Your task to perform on an android device: make emails show in primary in the gmail app Image 0: 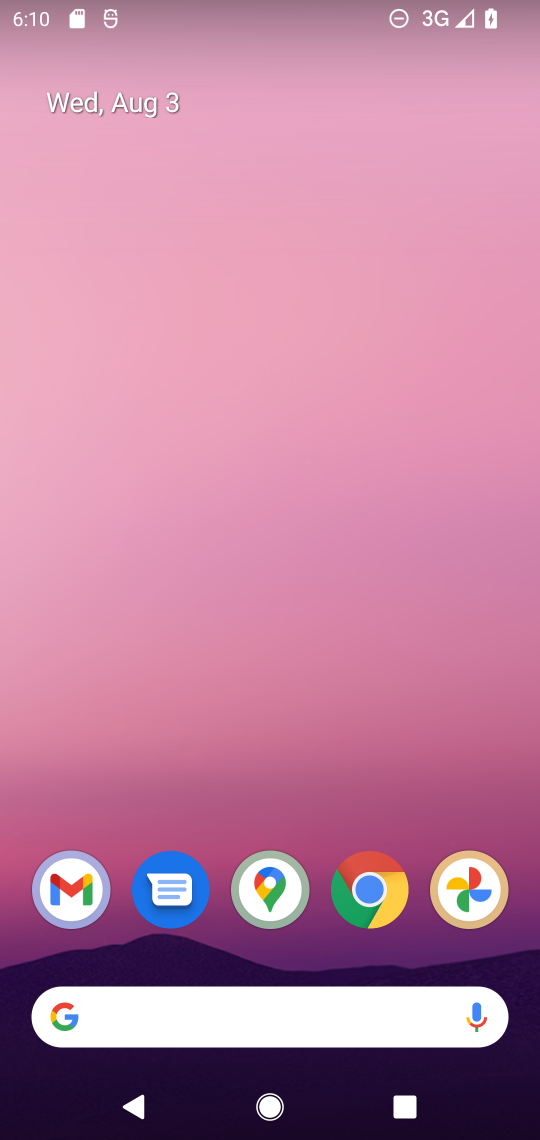
Step 0: click (72, 881)
Your task to perform on an android device: make emails show in primary in the gmail app Image 1: 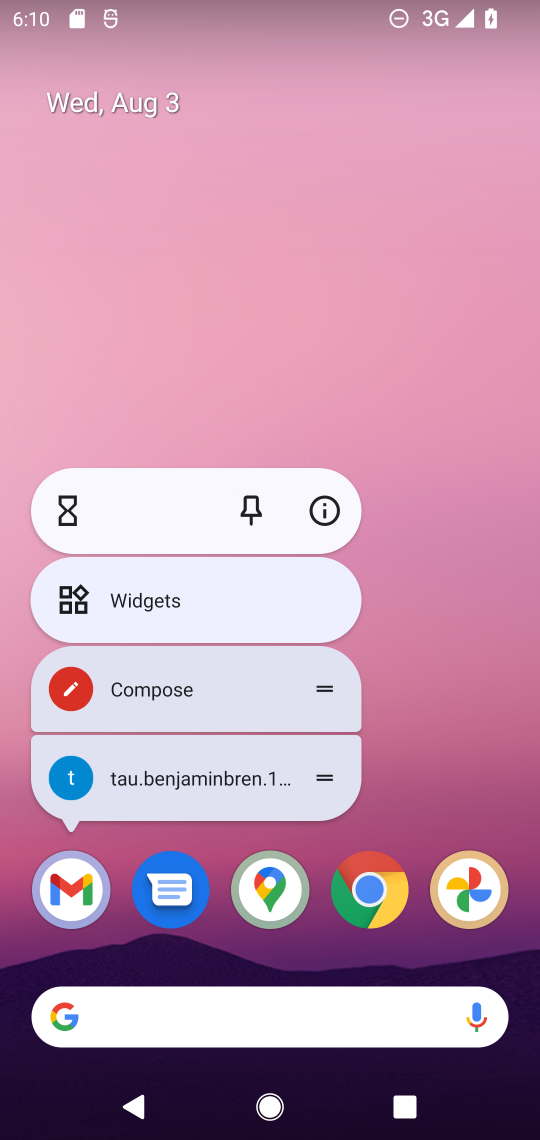
Step 1: click (72, 881)
Your task to perform on an android device: make emails show in primary in the gmail app Image 2: 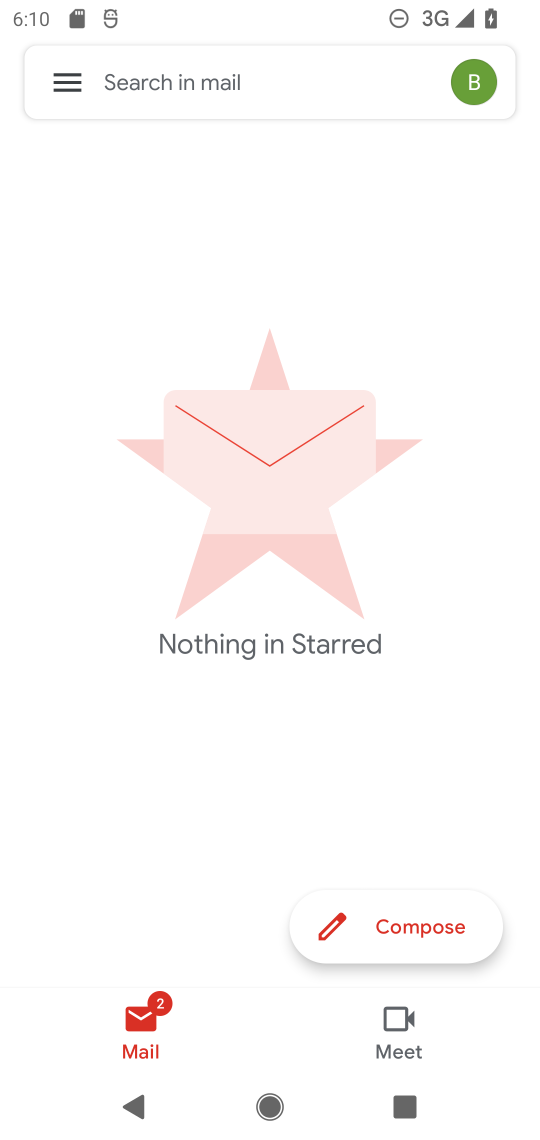
Step 2: click (73, 78)
Your task to perform on an android device: make emails show in primary in the gmail app Image 3: 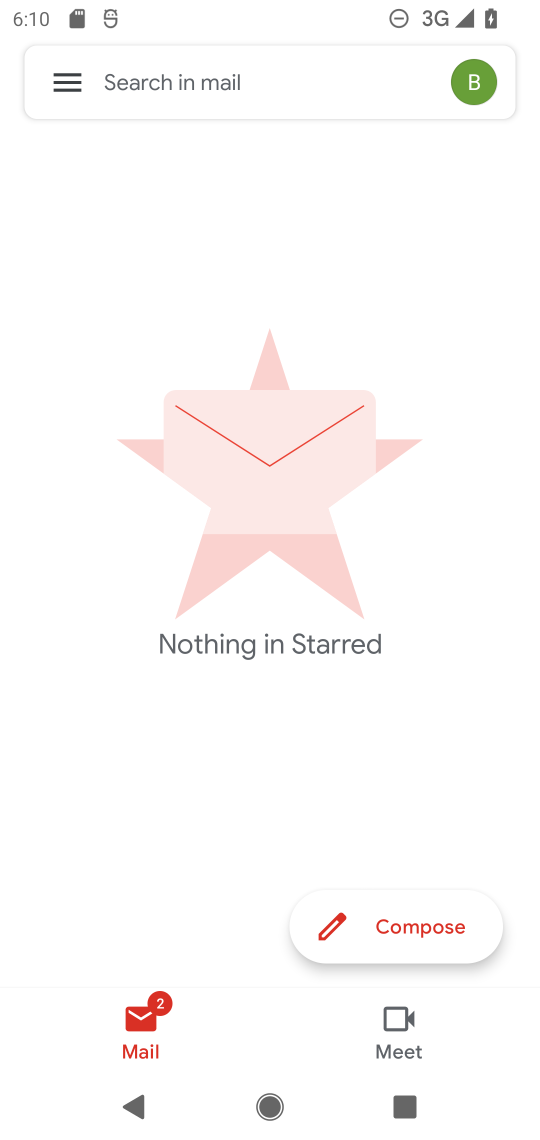
Step 3: click (73, 78)
Your task to perform on an android device: make emails show in primary in the gmail app Image 4: 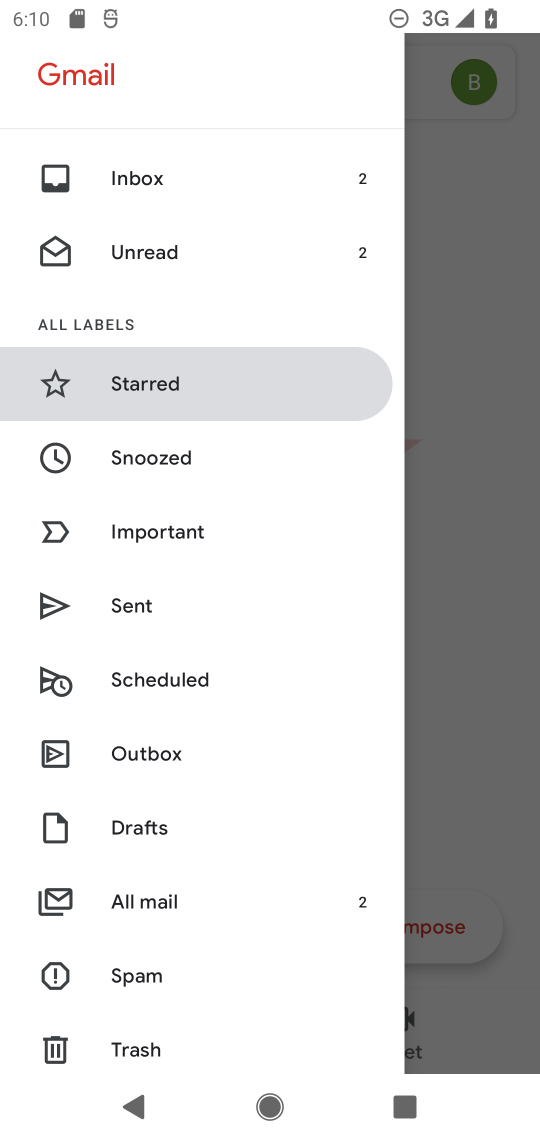
Step 4: drag from (288, 806) to (329, 186)
Your task to perform on an android device: make emails show in primary in the gmail app Image 5: 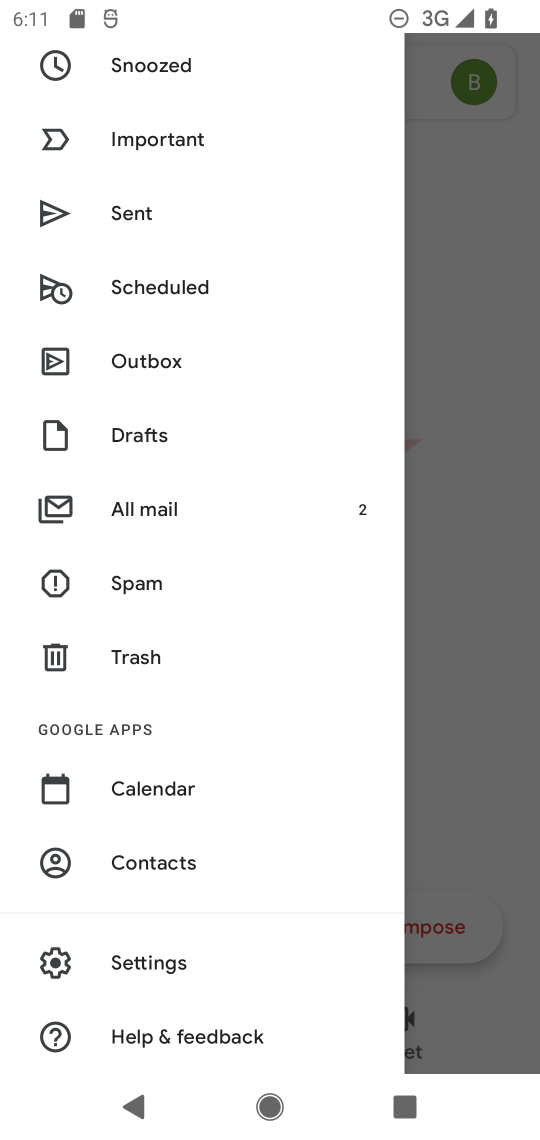
Step 5: click (155, 961)
Your task to perform on an android device: make emails show in primary in the gmail app Image 6: 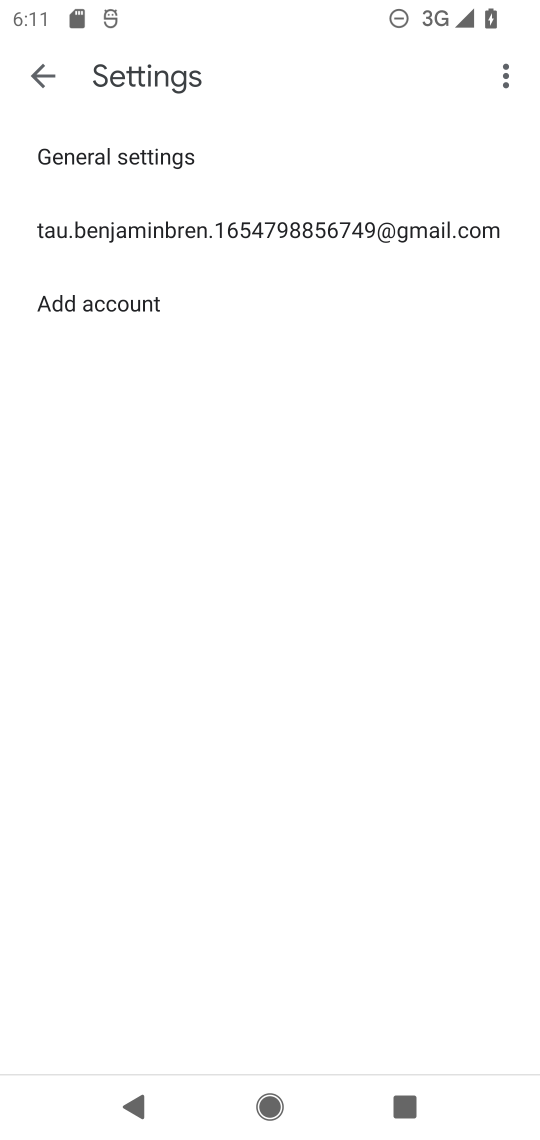
Step 6: click (304, 211)
Your task to perform on an android device: make emails show in primary in the gmail app Image 7: 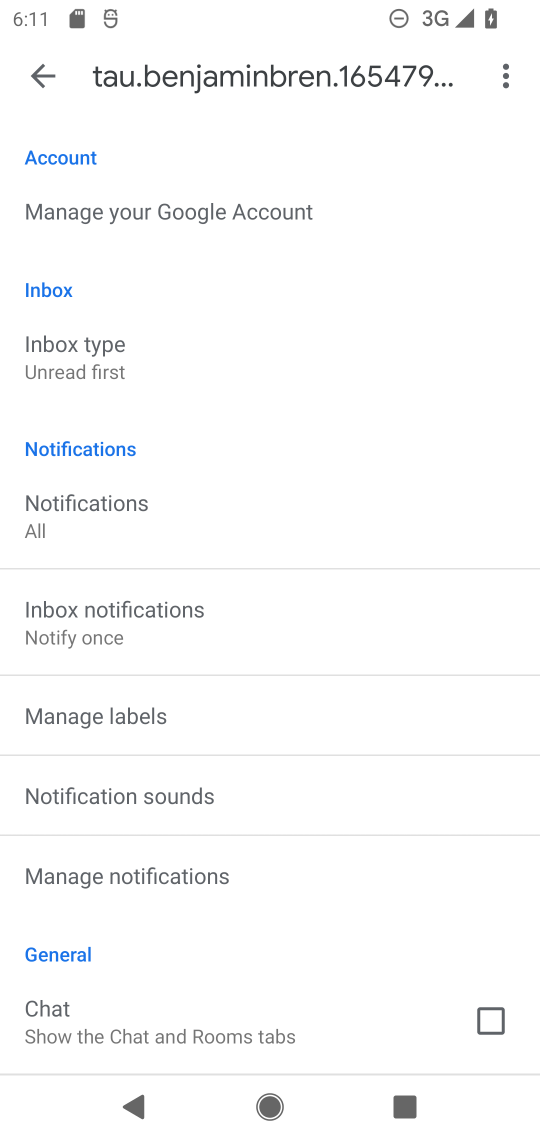
Step 7: click (115, 342)
Your task to perform on an android device: make emails show in primary in the gmail app Image 8: 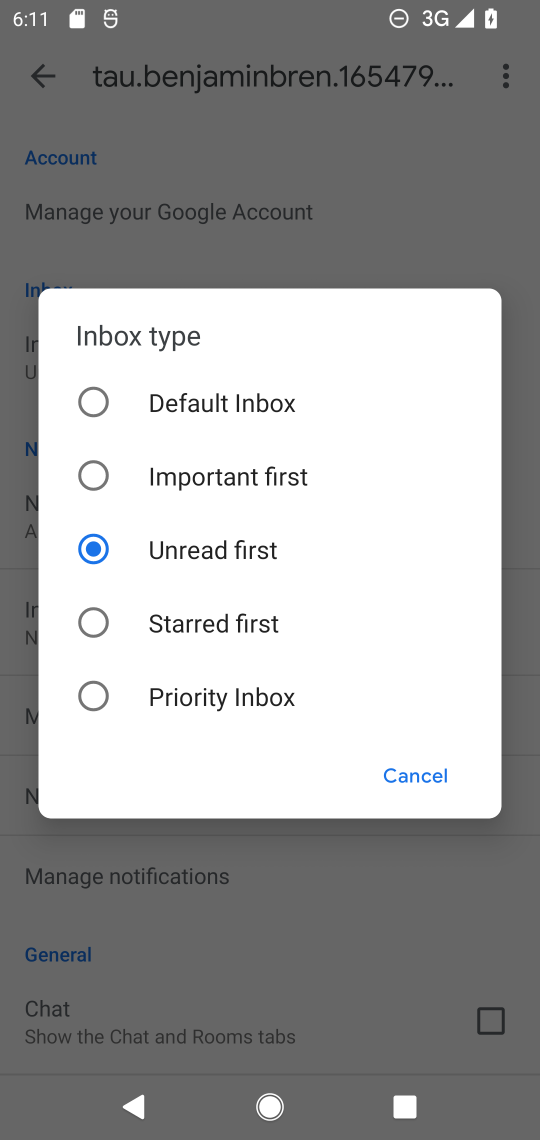
Step 8: click (96, 389)
Your task to perform on an android device: make emails show in primary in the gmail app Image 9: 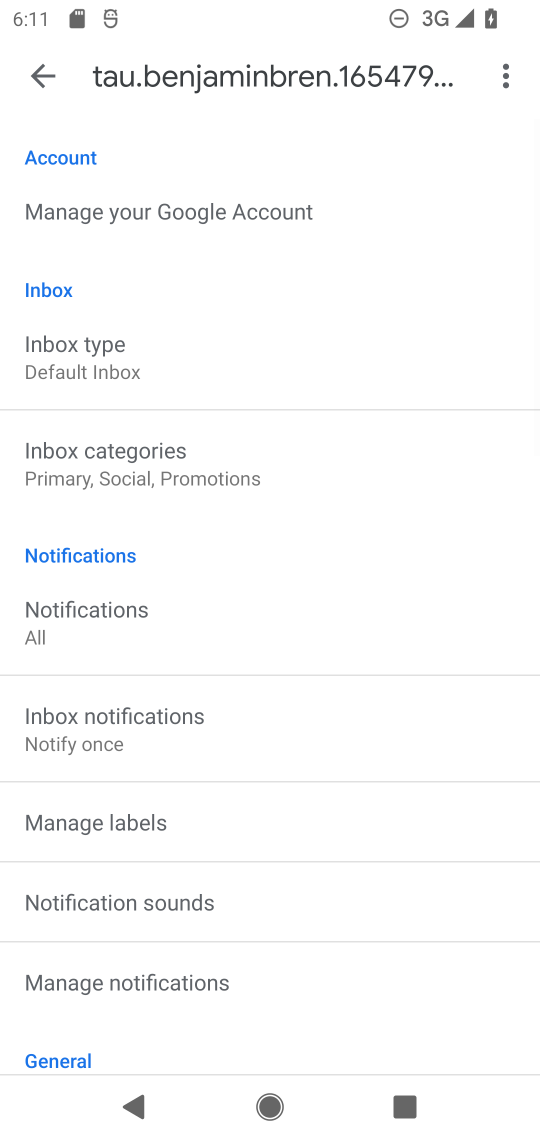
Step 9: click (106, 448)
Your task to perform on an android device: make emails show in primary in the gmail app Image 10: 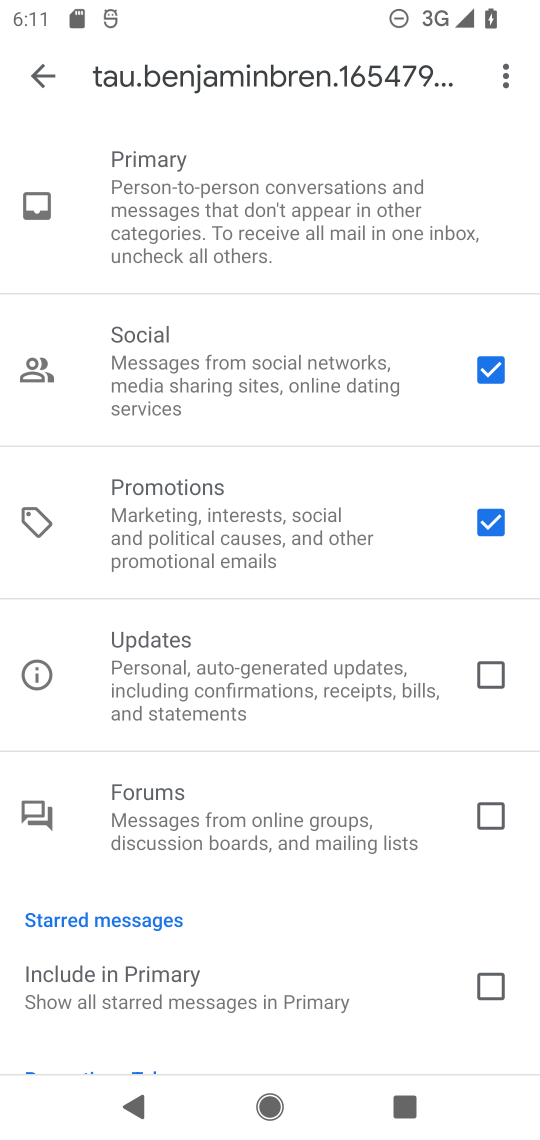
Step 10: click (491, 370)
Your task to perform on an android device: make emails show in primary in the gmail app Image 11: 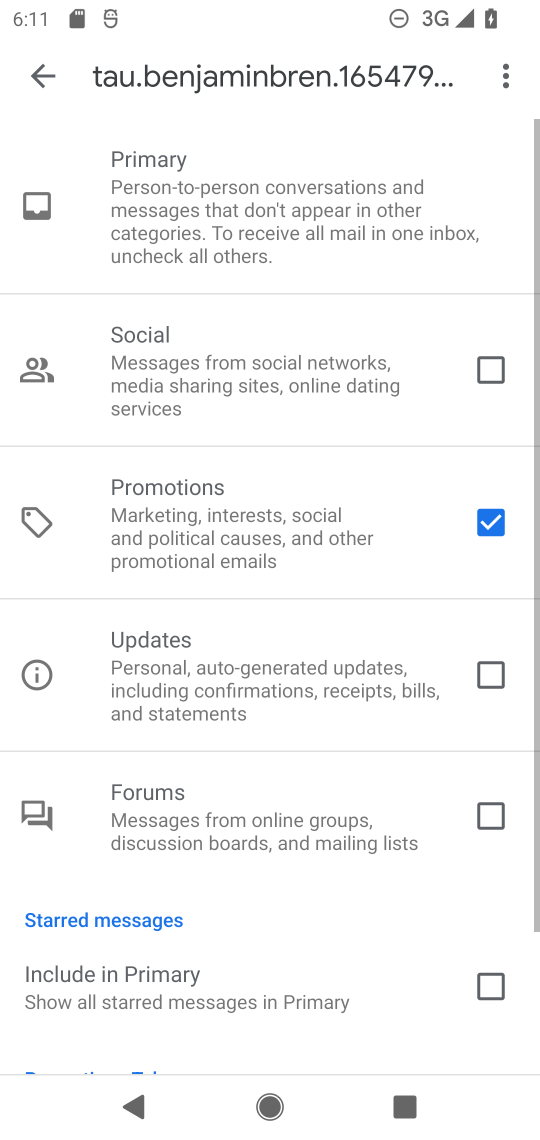
Step 11: click (488, 520)
Your task to perform on an android device: make emails show in primary in the gmail app Image 12: 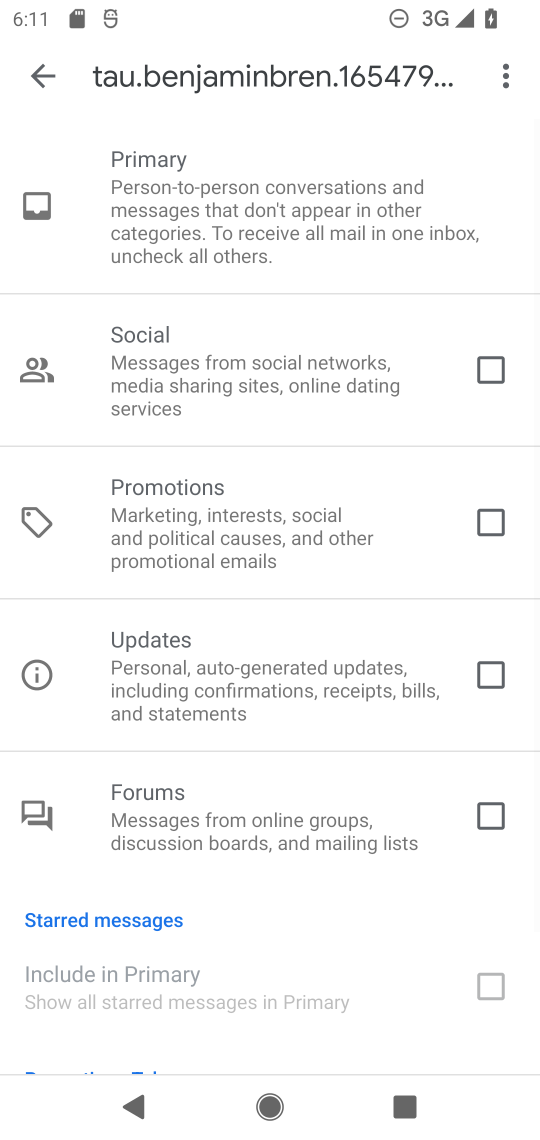
Step 12: click (46, 77)
Your task to perform on an android device: make emails show in primary in the gmail app Image 13: 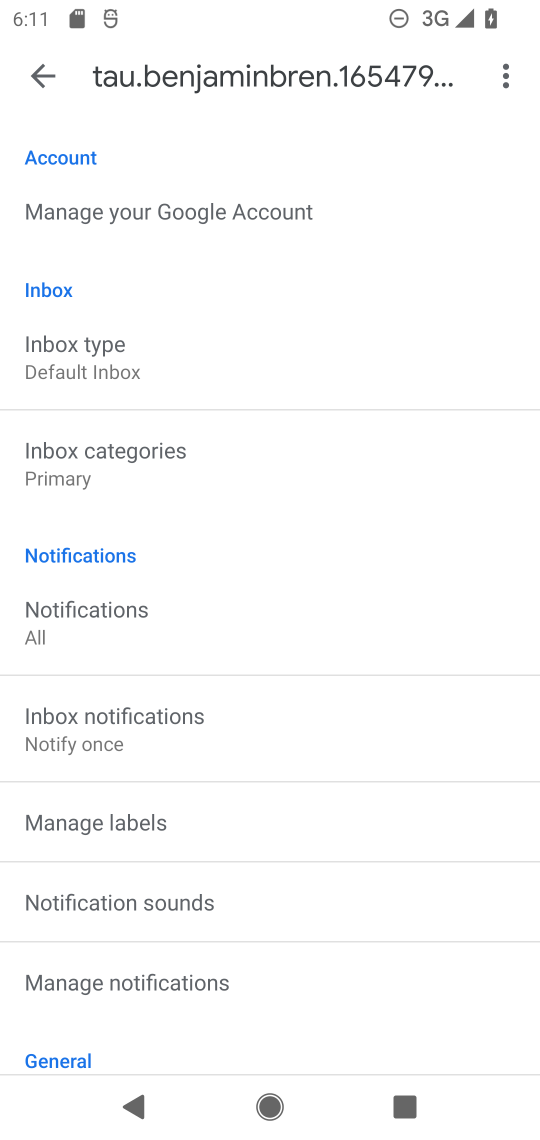
Step 13: task complete